Your task to perform on an android device: set the timer Image 0: 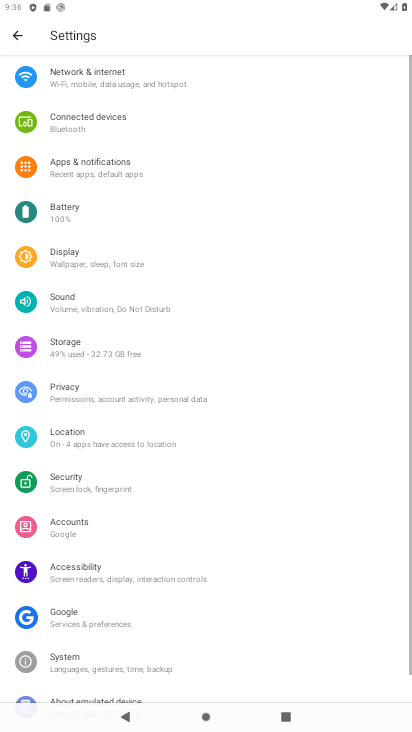
Step 0: press home button
Your task to perform on an android device: set the timer Image 1: 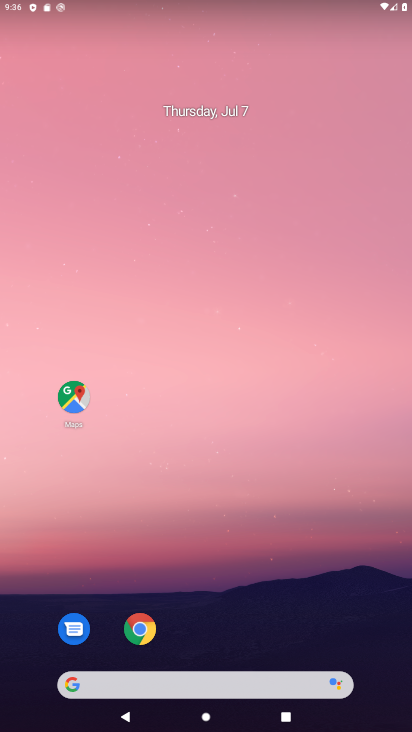
Step 1: drag from (34, 704) to (225, 254)
Your task to perform on an android device: set the timer Image 2: 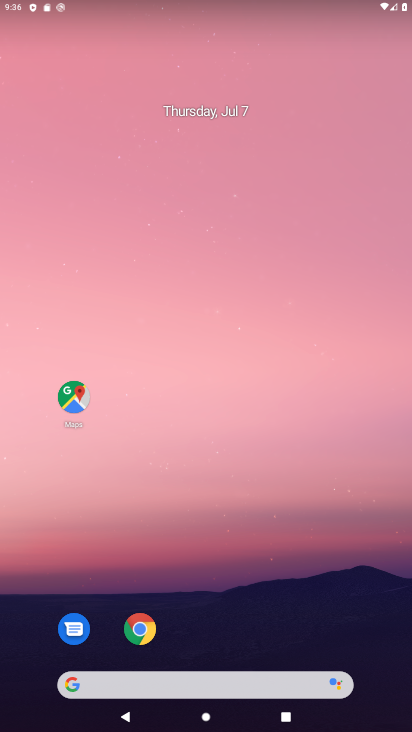
Step 2: drag from (25, 675) to (307, 10)
Your task to perform on an android device: set the timer Image 3: 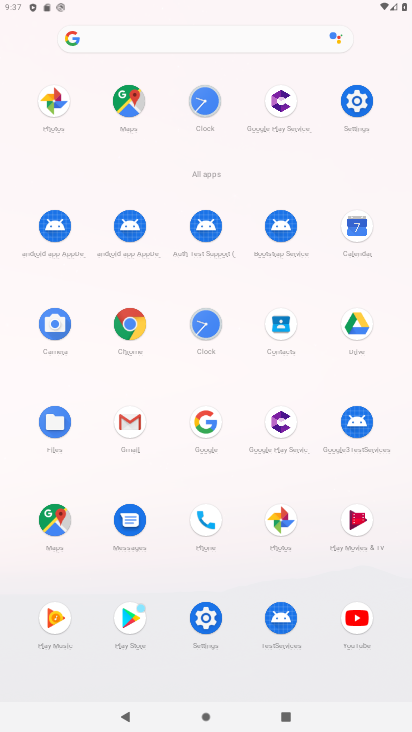
Step 3: click (212, 325)
Your task to perform on an android device: set the timer Image 4: 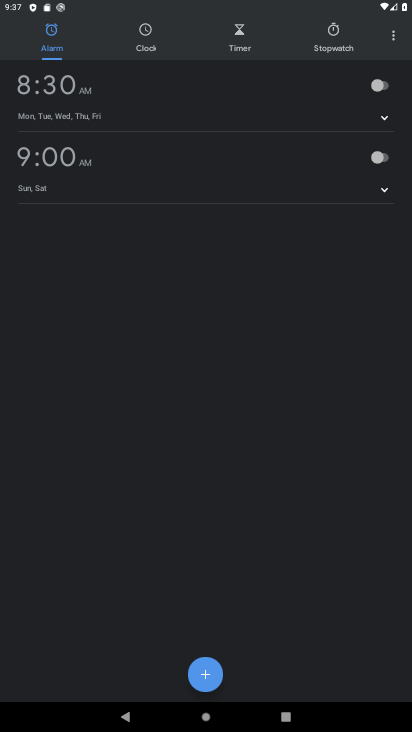
Step 4: click (228, 41)
Your task to perform on an android device: set the timer Image 5: 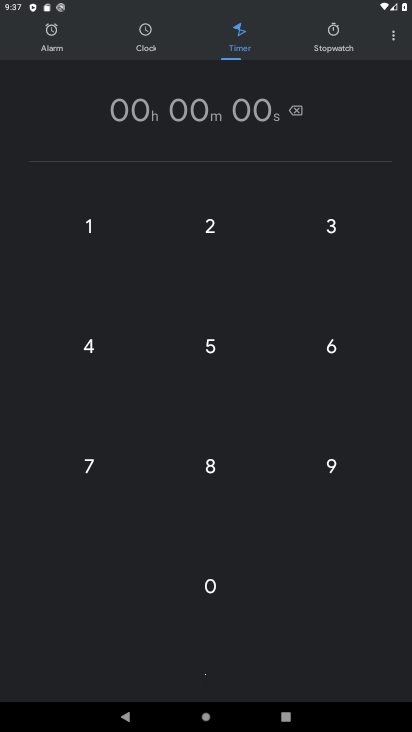
Step 5: click (255, 35)
Your task to perform on an android device: set the timer Image 6: 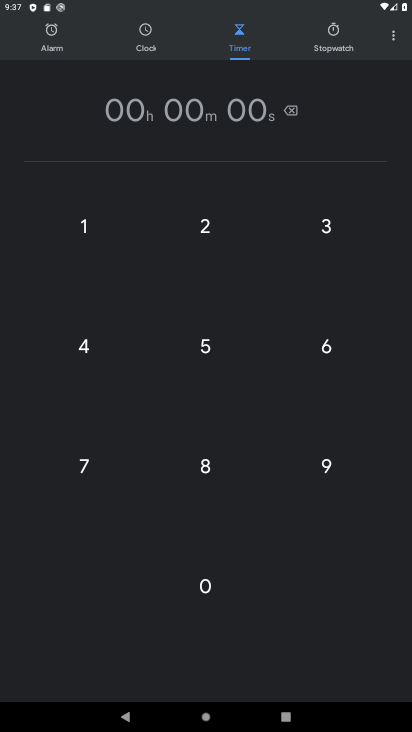
Step 6: click (213, 229)
Your task to perform on an android device: set the timer Image 7: 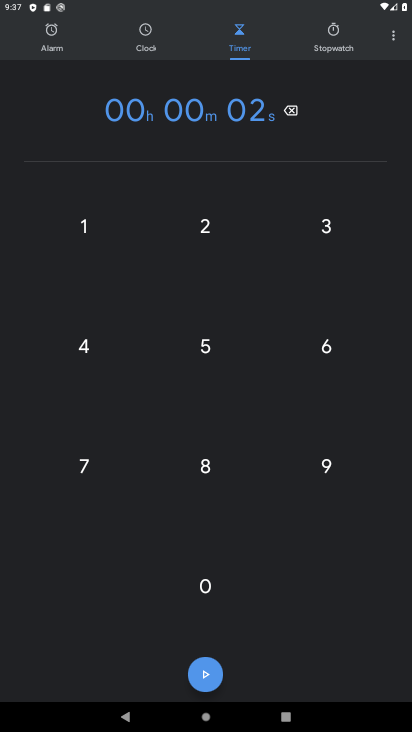
Step 7: click (209, 234)
Your task to perform on an android device: set the timer Image 8: 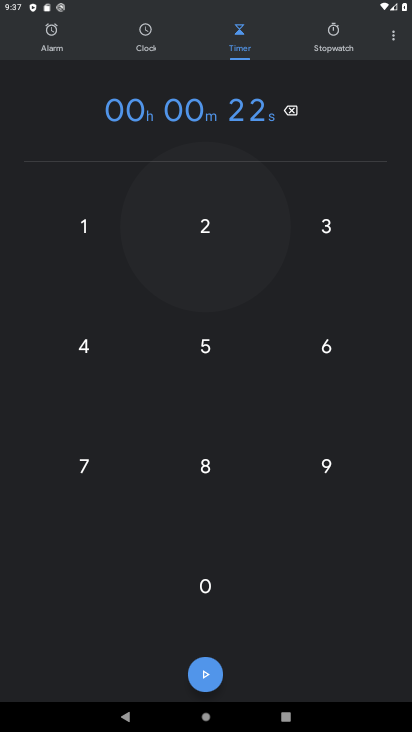
Step 8: click (202, 362)
Your task to perform on an android device: set the timer Image 9: 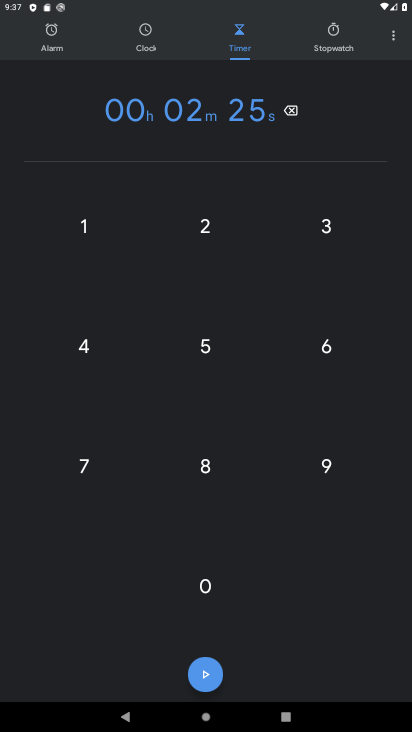
Step 9: click (110, 277)
Your task to perform on an android device: set the timer Image 10: 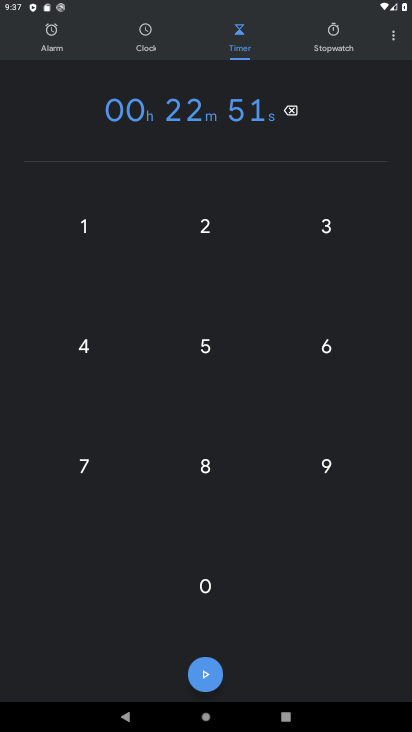
Step 10: task complete